Your task to perform on an android device: turn on notifications settings in the gmail app Image 0: 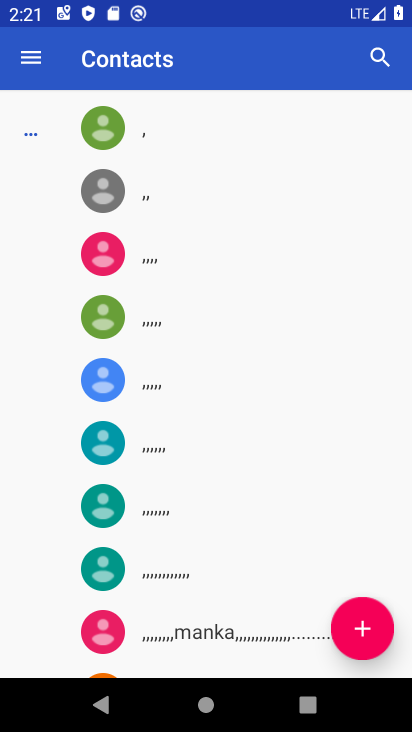
Step 0: press home button
Your task to perform on an android device: turn on notifications settings in the gmail app Image 1: 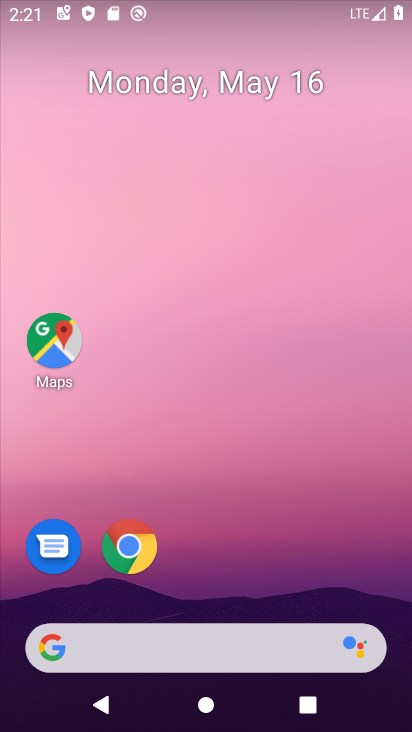
Step 1: drag from (275, 662) to (235, 294)
Your task to perform on an android device: turn on notifications settings in the gmail app Image 2: 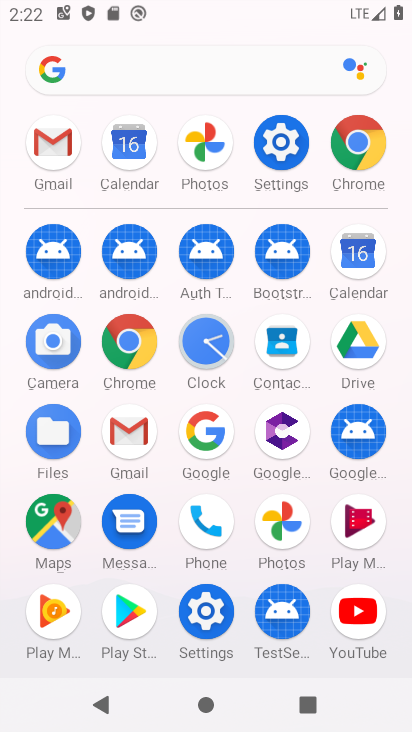
Step 2: click (272, 145)
Your task to perform on an android device: turn on notifications settings in the gmail app Image 3: 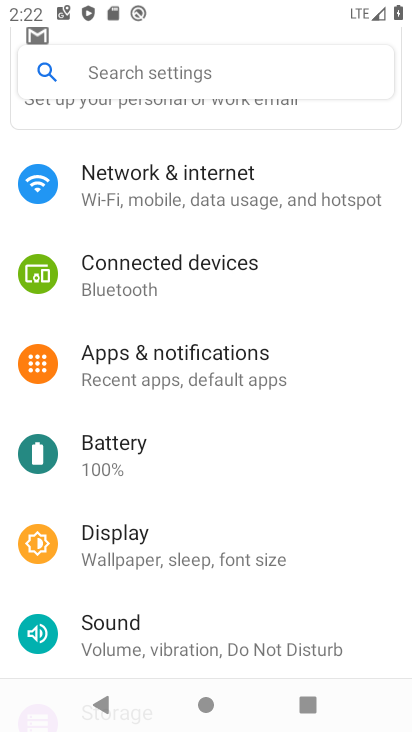
Step 3: press home button
Your task to perform on an android device: turn on notifications settings in the gmail app Image 4: 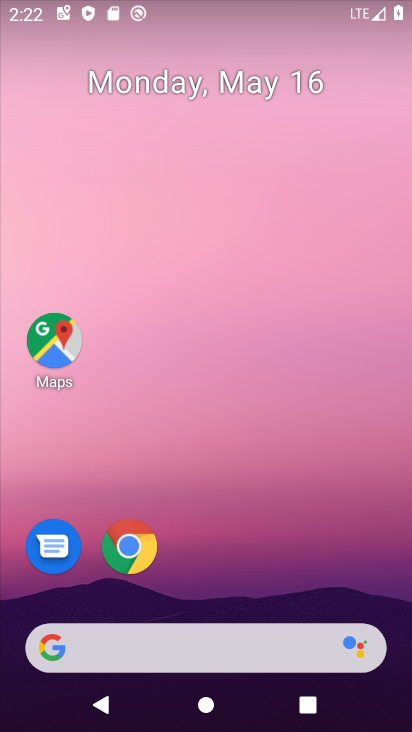
Step 4: drag from (236, 640) to (216, 116)
Your task to perform on an android device: turn on notifications settings in the gmail app Image 5: 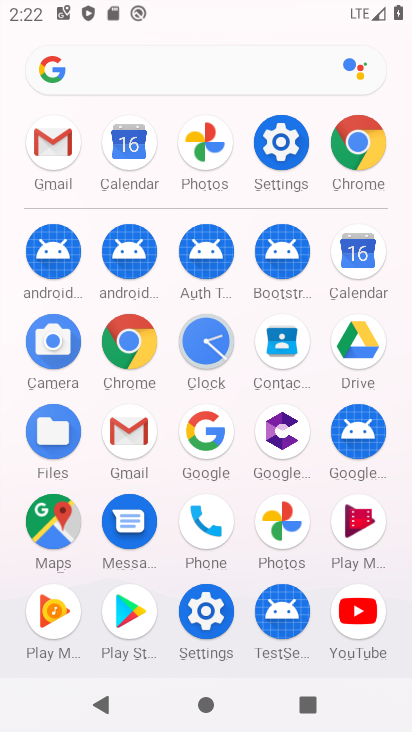
Step 5: click (53, 143)
Your task to perform on an android device: turn on notifications settings in the gmail app Image 6: 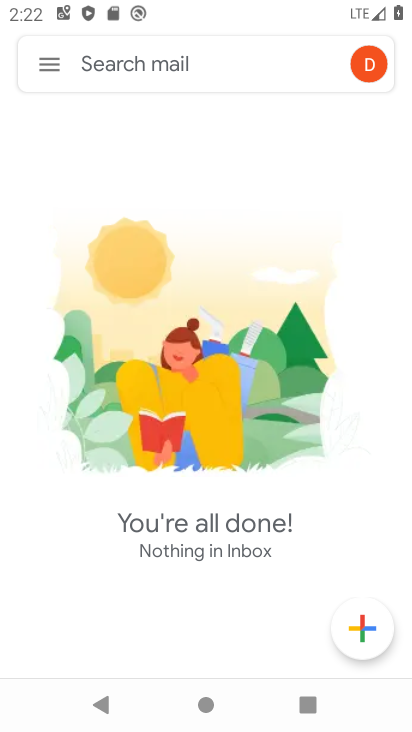
Step 6: click (42, 67)
Your task to perform on an android device: turn on notifications settings in the gmail app Image 7: 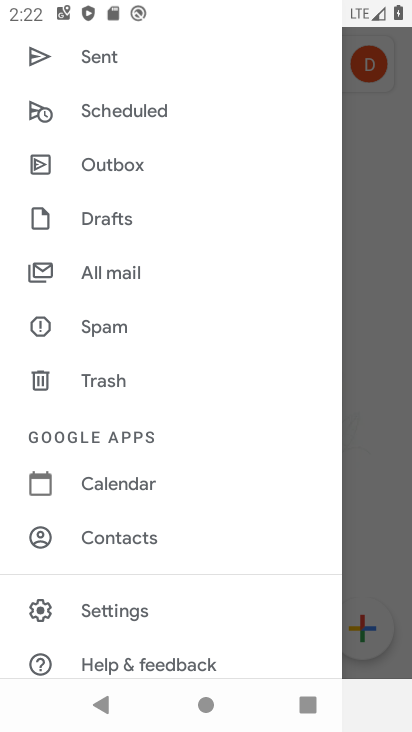
Step 7: click (104, 617)
Your task to perform on an android device: turn on notifications settings in the gmail app Image 8: 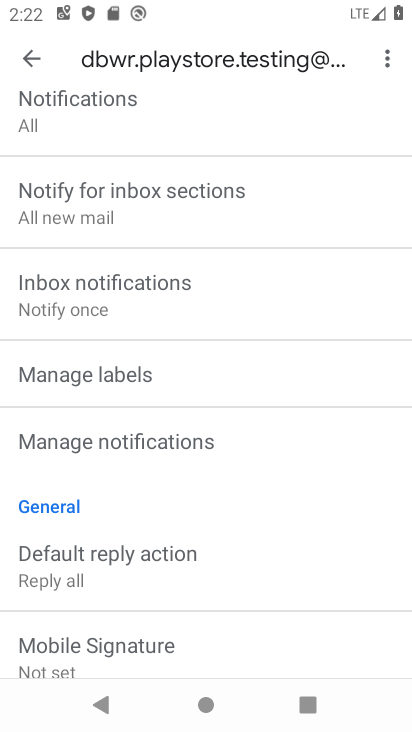
Step 8: click (124, 111)
Your task to perform on an android device: turn on notifications settings in the gmail app Image 9: 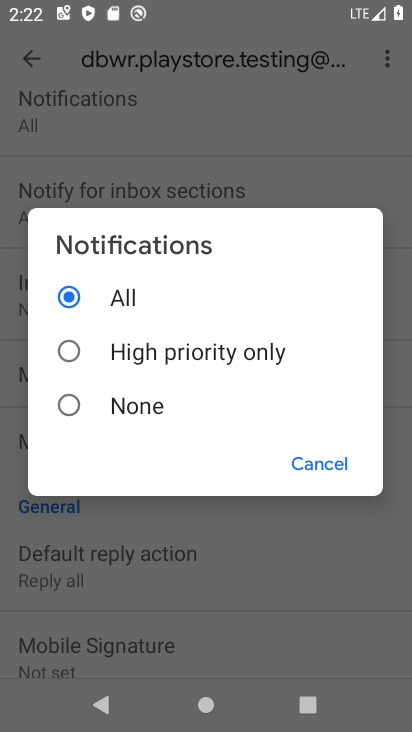
Step 9: task complete